Your task to perform on an android device: set the timer Image 0: 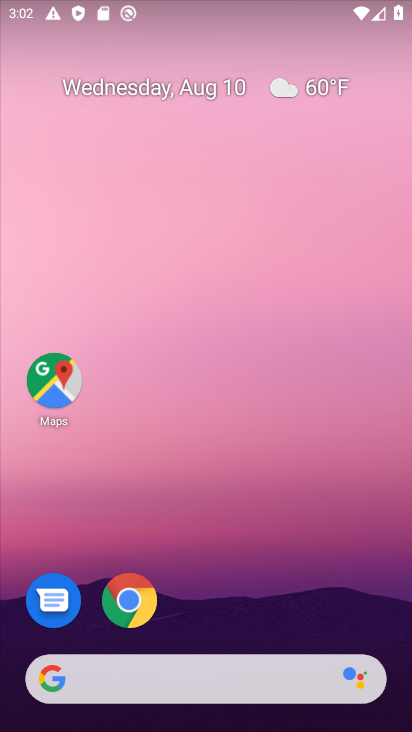
Step 0: drag from (209, 638) to (238, 5)
Your task to perform on an android device: set the timer Image 1: 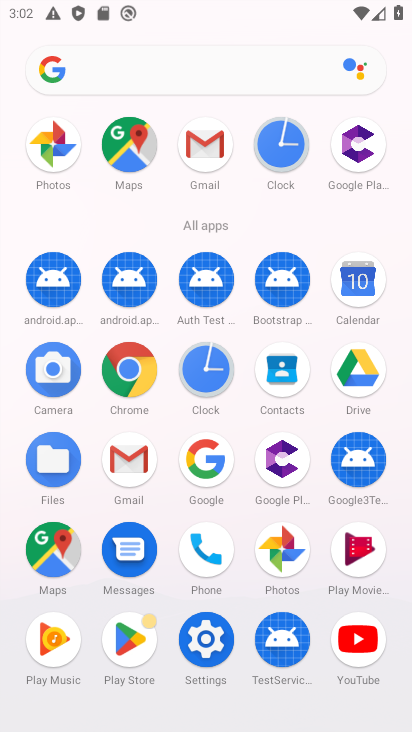
Step 1: click (292, 158)
Your task to perform on an android device: set the timer Image 2: 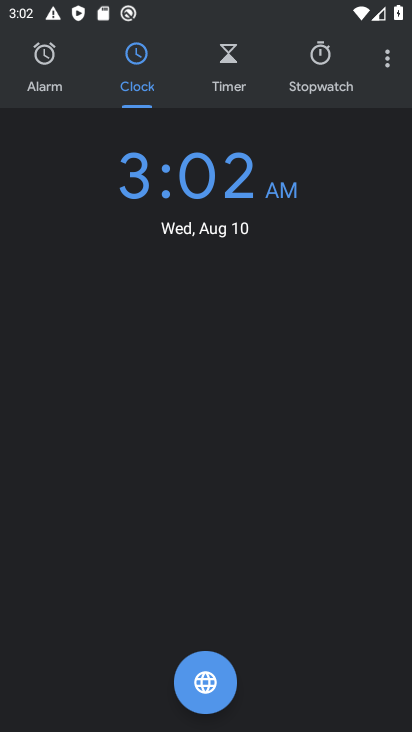
Step 2: click (225, 64)
Your task to perform on an android device: set the timer Image 3: 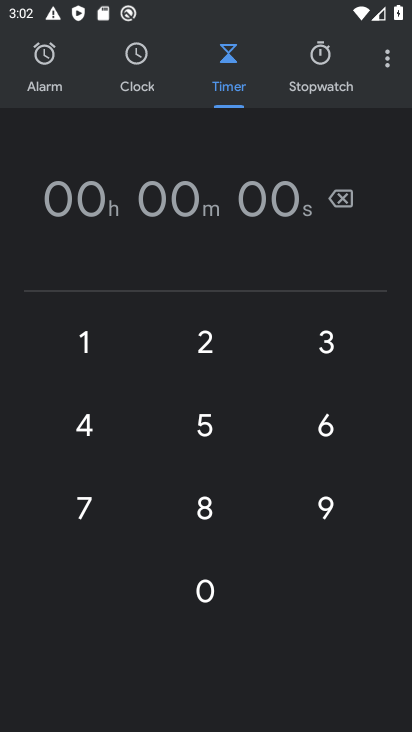
Step 3: click (191, 330)
Your task to perform on an android device: set the timer Image 4: 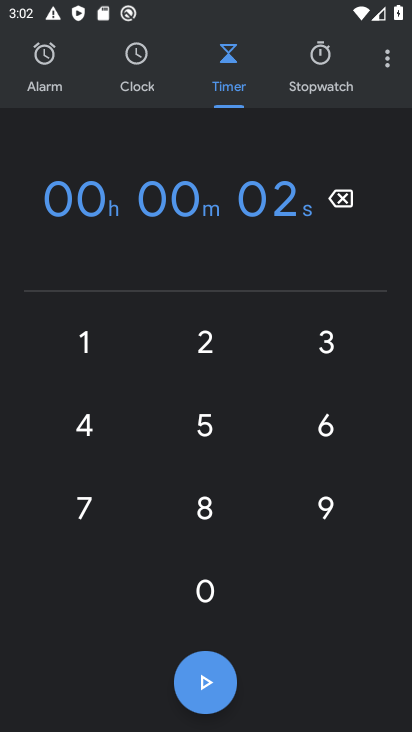
Step 4: click (75, 348)
Your task to perform on an android device: set the timer Image 5: 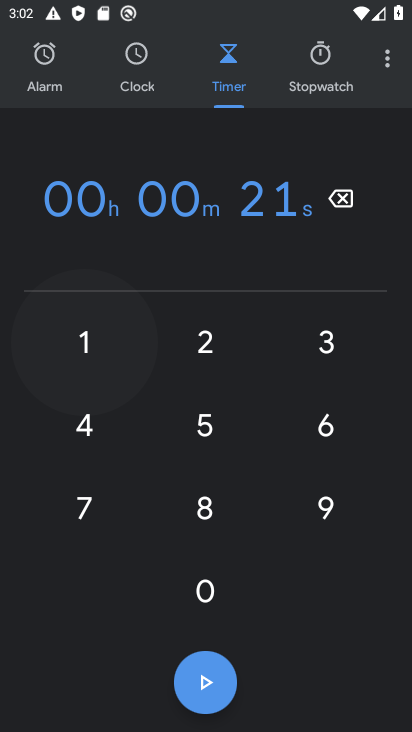
Step 5: click (96, 415)
Your task to perform on an android device: set the timer Image 6: 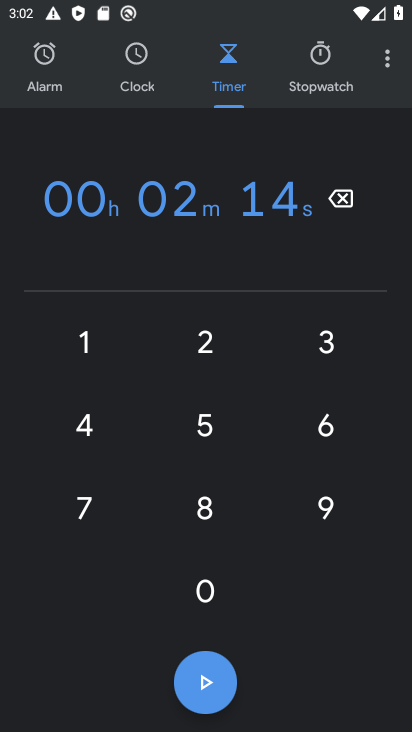
Step 6: click (204, 438)
Your task to perform on an android device: set the timer Image 7: 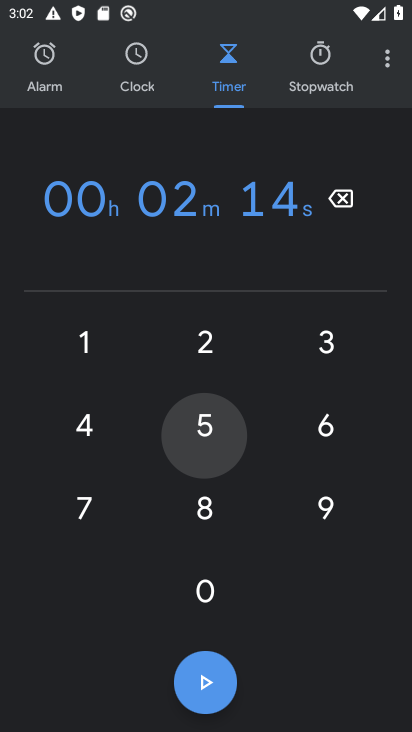
Step 7: click (204, 437)
Your task to perform on an android device: set the timer Image 8: 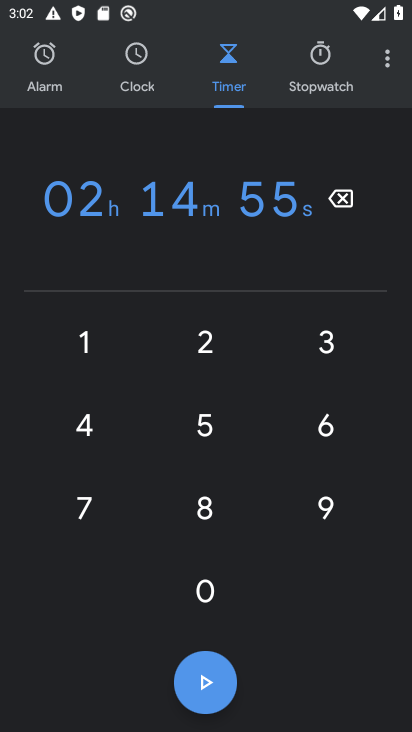
Step 8: click (336, 511)
Your task to perform on an android device: set the timer Image 9: 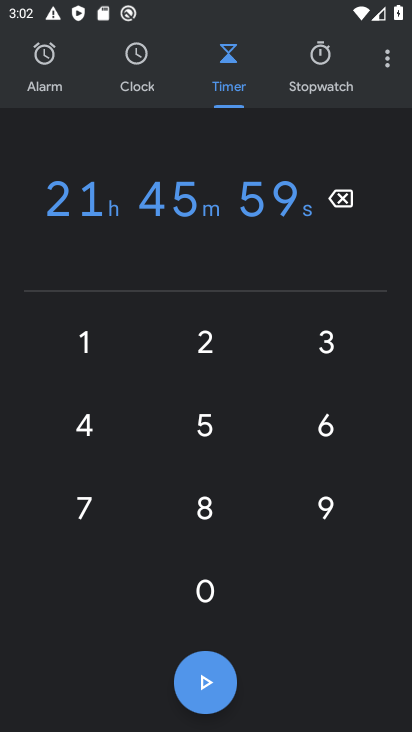
Step 9: click (205, 682)
Your task to perform on an android device: set the timer Image 10: 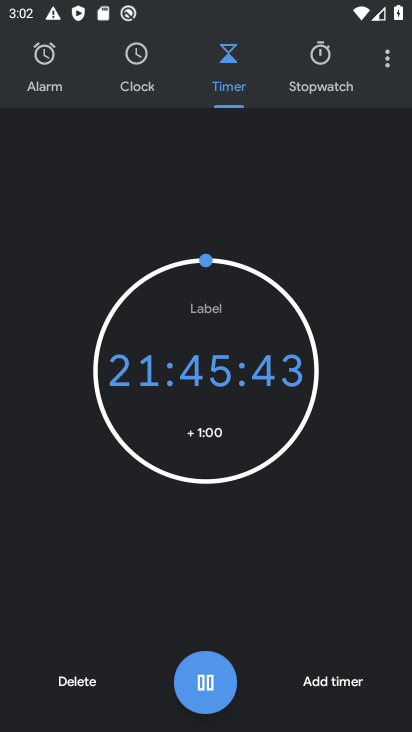
Step 10: task complete